Your task to perform on an android device: turn notification dots off Image 0: 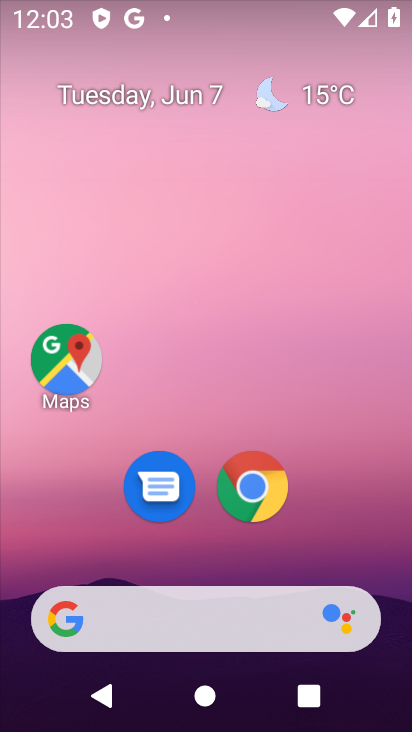
Step 0: drag from (214, 267) to (185, 0)
Your task to perform on an android device: turn notification dots off Image 1: 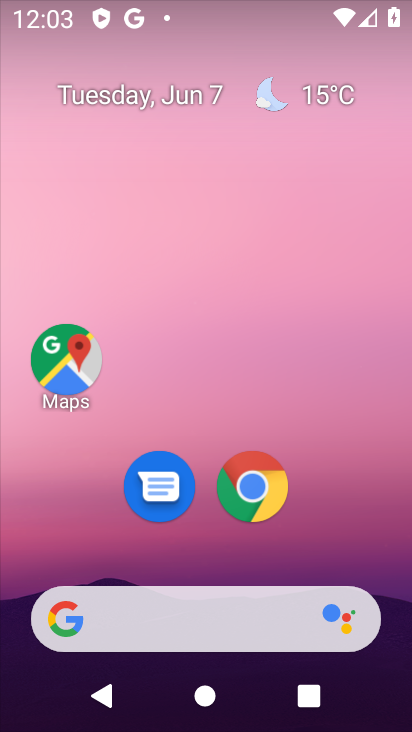
Step 1: drag from (228, 557) to (113, 23)
Your task to perform on an android device: turn notification dots off Image 2: 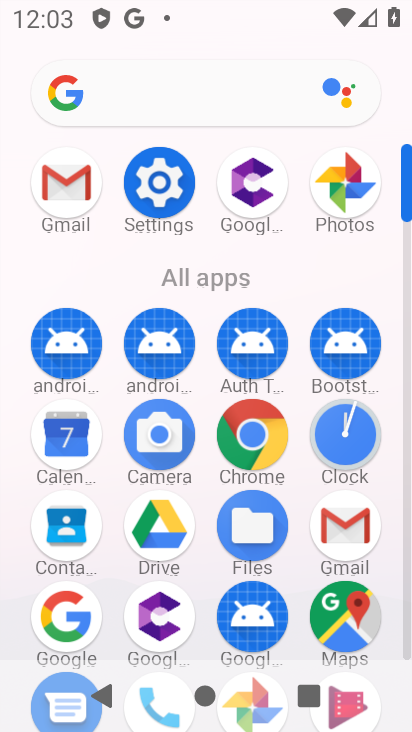
Step 2: click (152, 180)
Your task to perform on an android device: turn notification dots off Image 3: 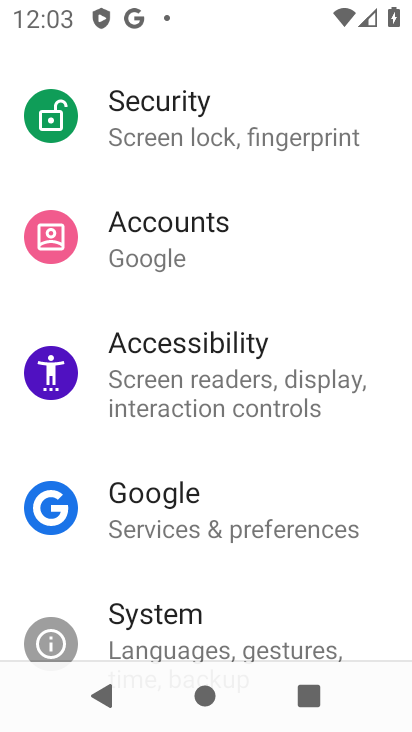
Step 3: drag from (248, 472) to (231, 74)
Your task to perform on an android device: turn notification dots off Image 4: 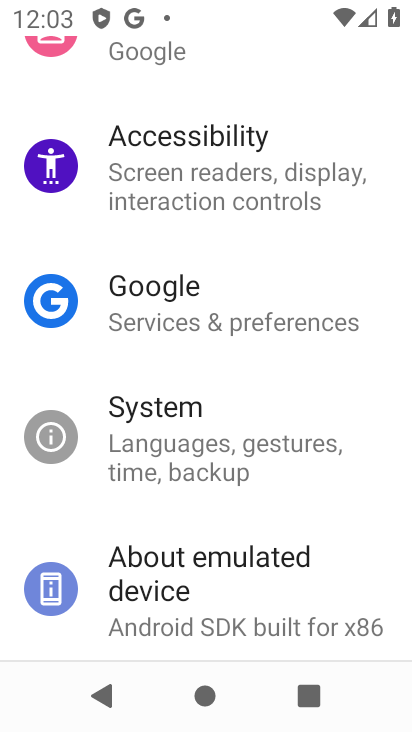
Step 4: drag from (254, 148) to (244, 594)
Your task to perform on an android device: turn notification dots off Image 5: 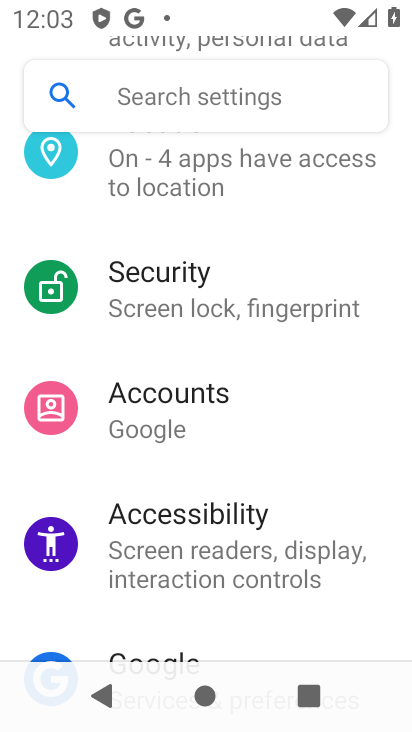
Step 5: drag from (252, 208) to (277, 659)
Your task to perform on an android device: turn notification dots off Image 6: 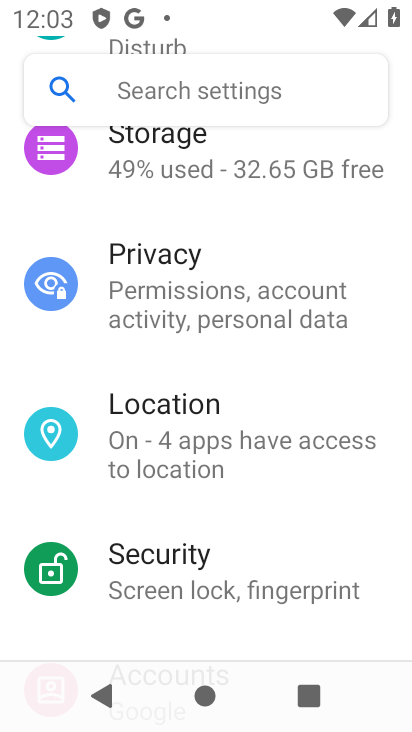
Step 6: drag from (253, 221) to (230, 607)
Your task to perform on an android device: turn notification dots off Image 7: 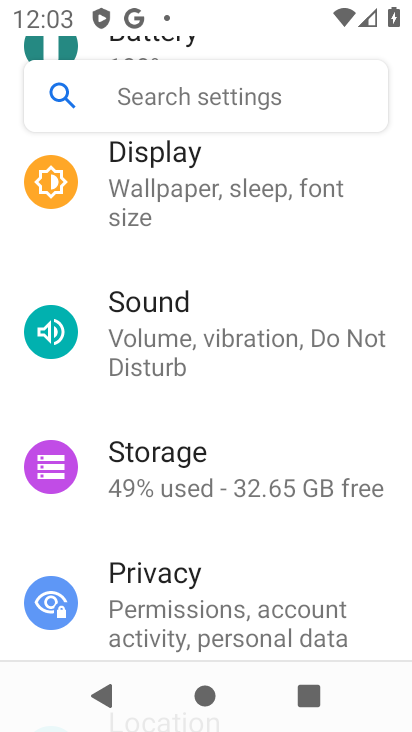
Step 7: drag from (243, 291) to (219, 641)
Your task to perform on an android device: turn notification dots off Image 8: 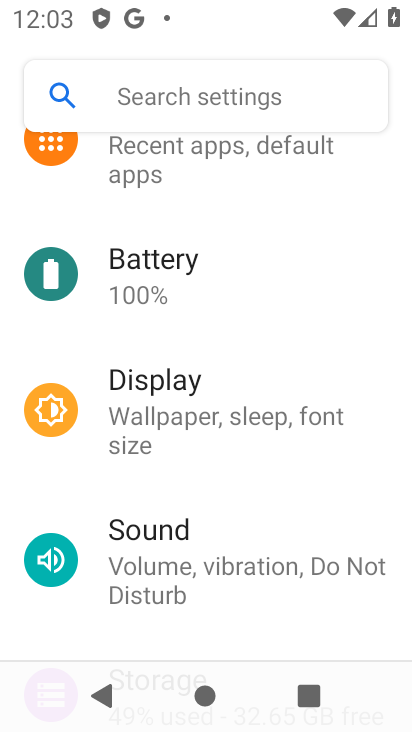
Step 8: drag from (248, 241) to (246, 542)
Your task to perform on an android device: turn notification dots off Image 9: 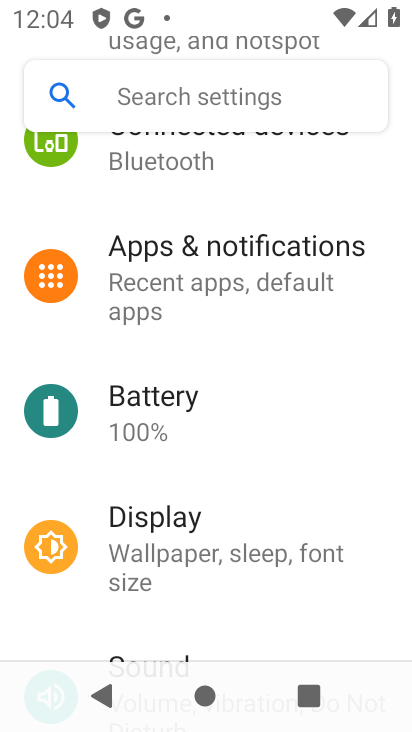
Step 9: click (242, 293)
Your task to perform on an android device: turn notification dots off Image 10: 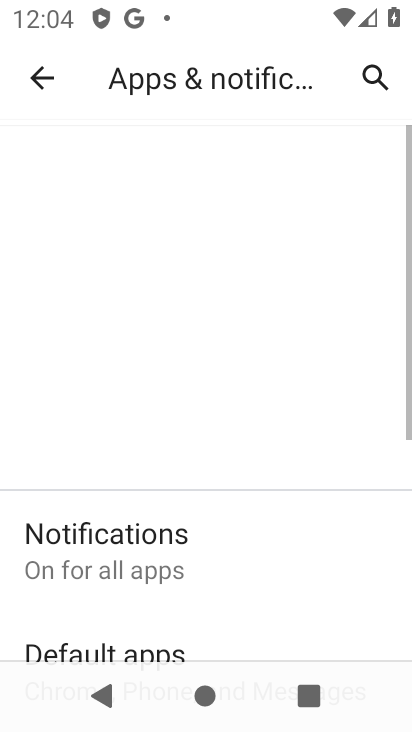
Step 10: drag from (243, 539) to (239, 277)
Your task to perform on an android device: turn notification dots off Image 11: 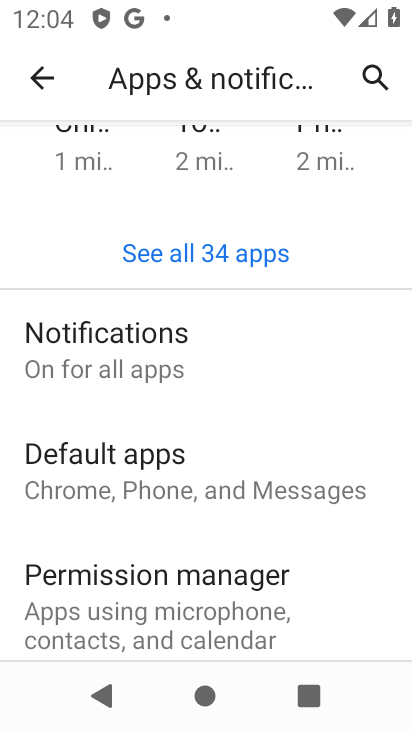
Step 11: click (220, 360)
Your task to perform on an android device: turn notification dots off Image 12: 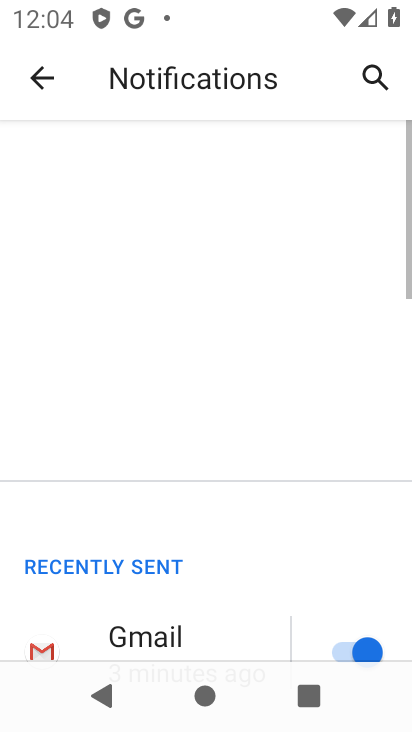
Step 12: drag from (234, 553) to (193, 133)
Your task to perform on an android device: turn notification dots off Image 13: 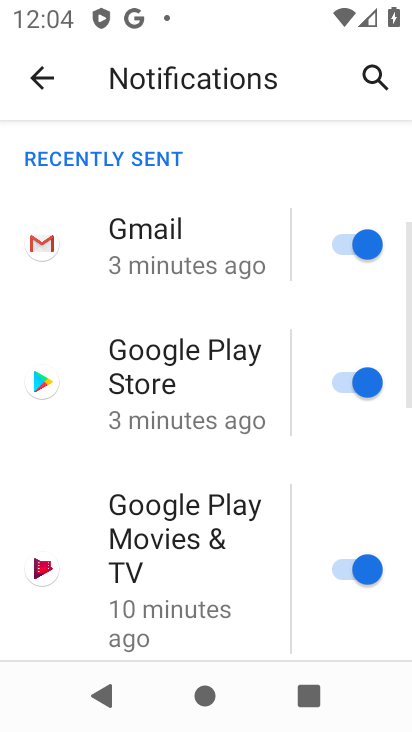
Step 13: drag from (217, 568) to (188, 204)
Your task to perform on an android device: turn notification dots off Image 14: 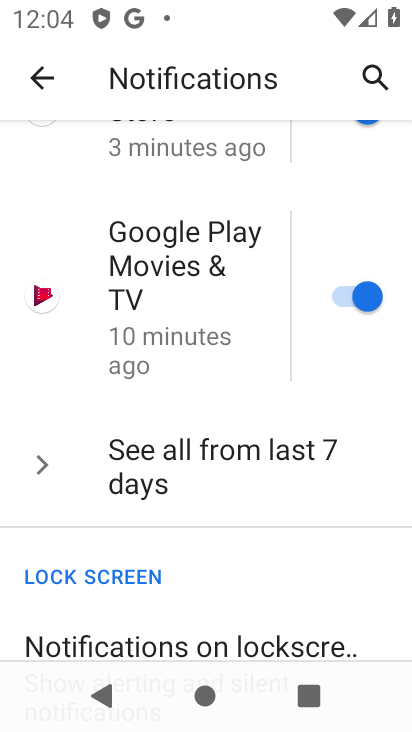
Step 14: drag from (184, 554) to (162, 203)
Your task to perform on an android device: turn notification dots off Image 15: 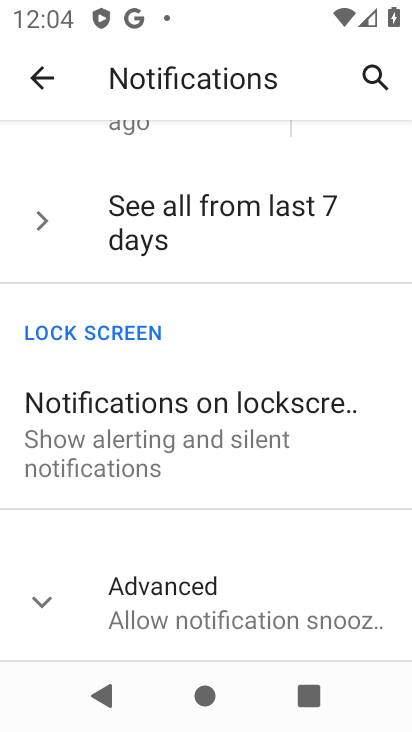
Step 15: click (197, 599)
Your task to perform on an android device: turn notification dots off Image 16: 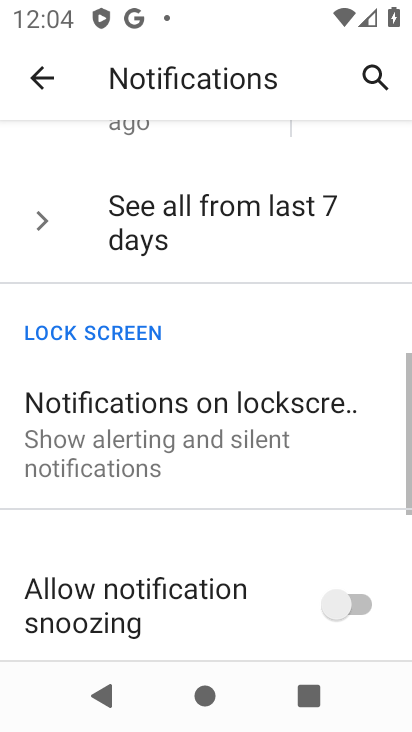
Step 16: drag from (161, 539) to (164, 143)
Your task to perform on an android device: turn notification dots off Image 17: 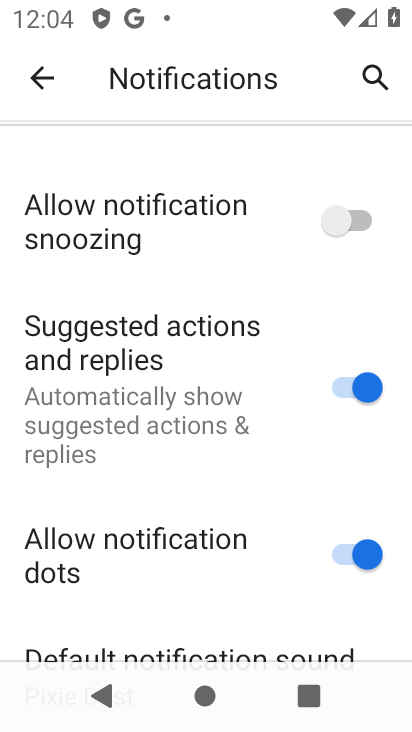
Step 17: click (352, 562)
Your task to perform on an android device: turn notification dots off Image 18: 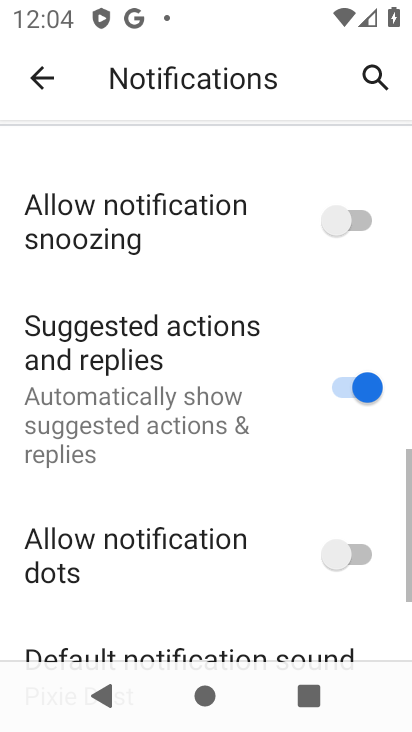
Step 18: task complete